Your task to perform on an android device: Open Google Image 0: 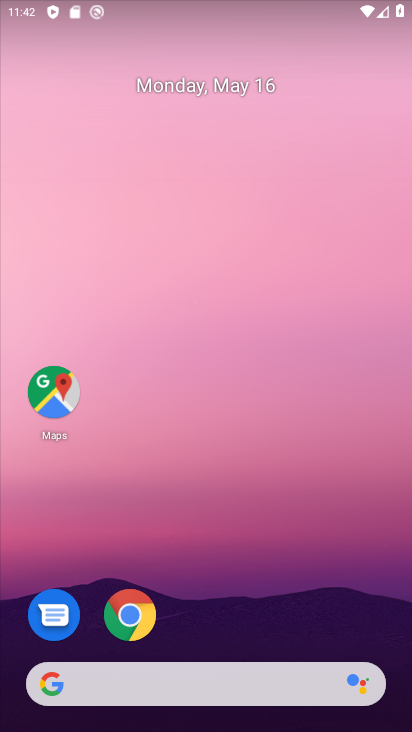
Step 0: drag from (248, 591) to (242, 105)
Your task to perform on an android device: Open Google Image 1: 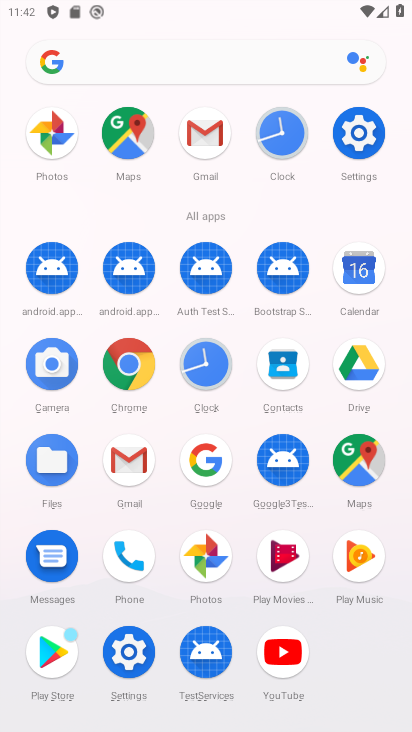
Step 1: click (119, 356)
Your task to perform on an android device: Open Google Image 2: 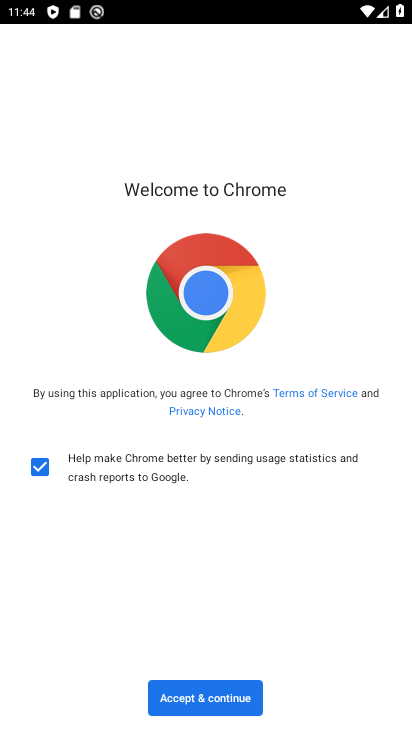
Step 2: click (189, 706)
Your task to perform on an android device: Open Google Image 3: 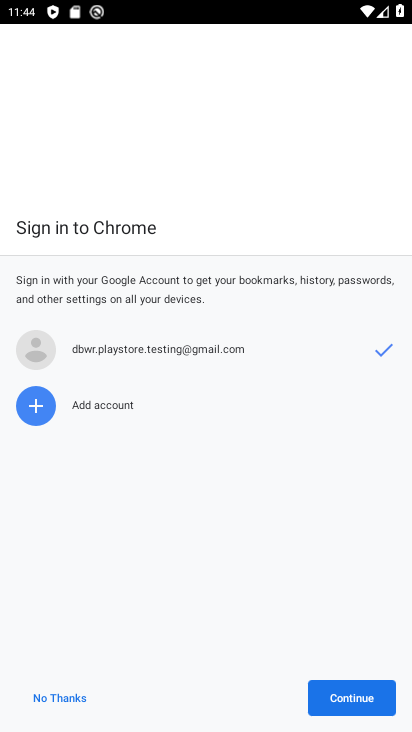
Step 3: click (366, 699)
Your task to perform on an android device: Open Google Image 4: 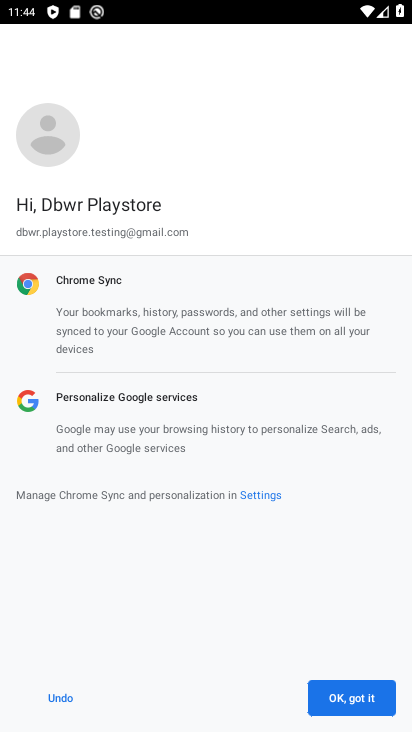
Step 4: click (366, 699)
Your task to perform on an android device: Open Google Image 5: 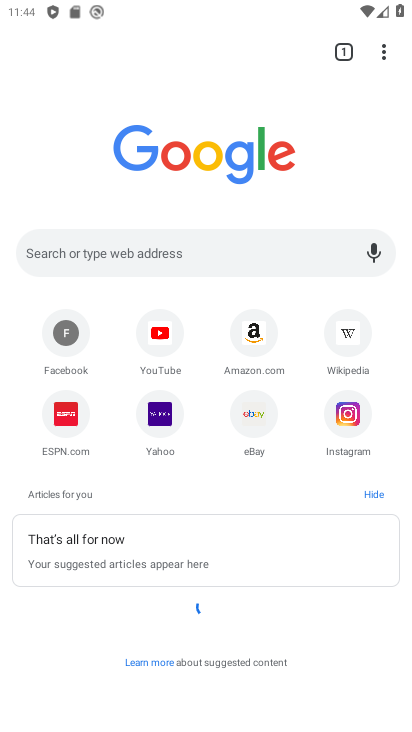
Step 5: click (131, 251)
Your task to perform on an android device: Open Google Image 6: 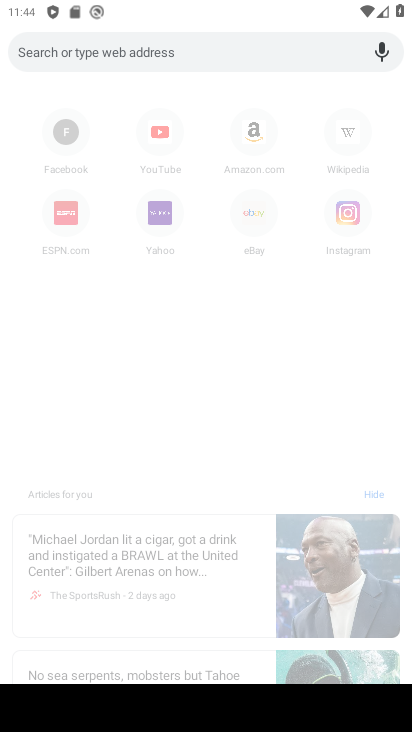
Step 6: type "google.com"
Your task to perform on an android device: Open Google Image 7: 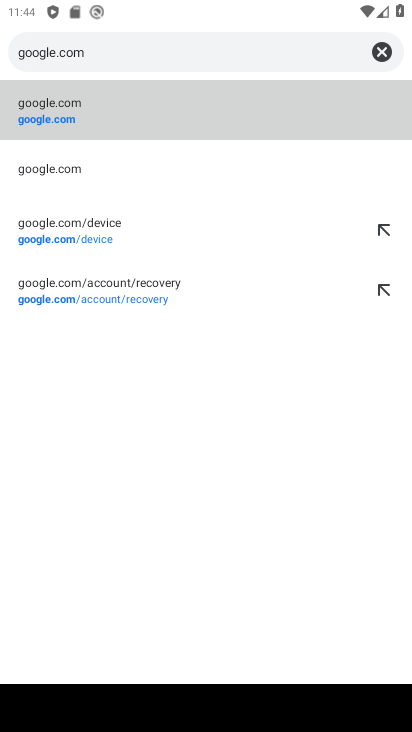
Step 7: click (207, 104)
Your task to perform on an android device: Open Google Image 8: 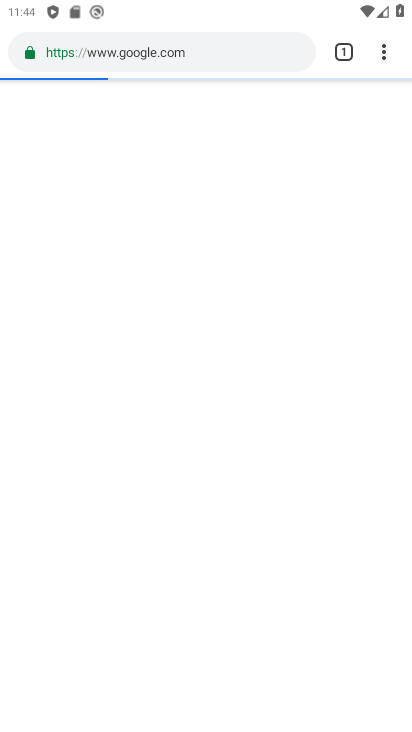
Step 8: task complete